Your task to perform on an android device: Open Amazon Image 0: 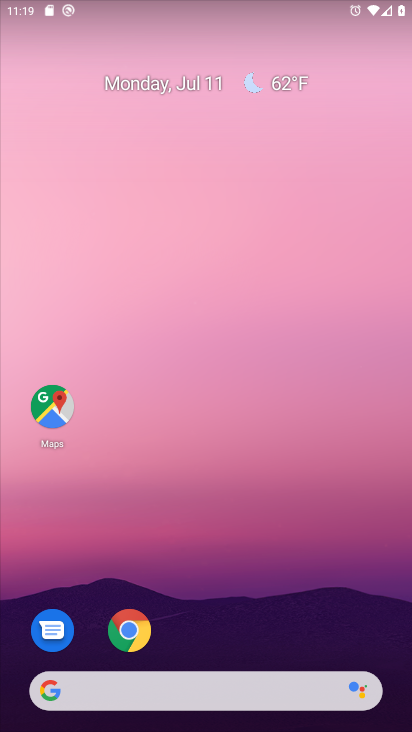
Step 0: click (135, 633)
Your task to perform on an android device: Open Amazon Image 1: 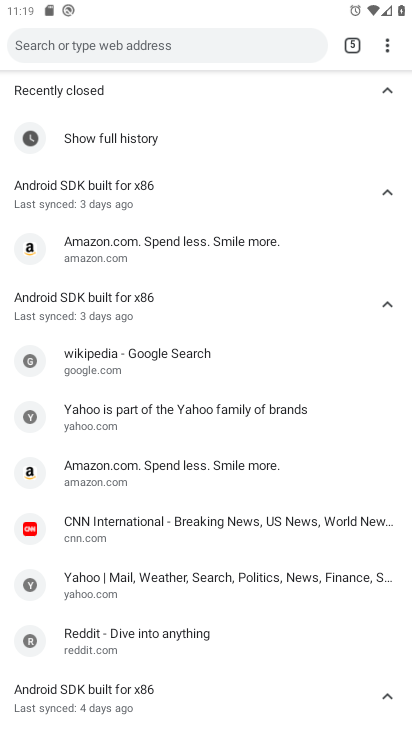
Step 1: click (389, 40)
Your task to perform on an android device: Open Amazon Image 2: 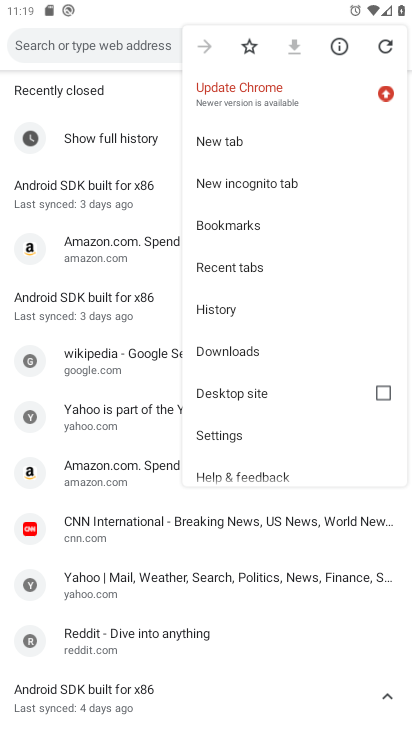
Step 2: click (256, 138)
Your task to perform on an android device: Open Amazon Image 3: 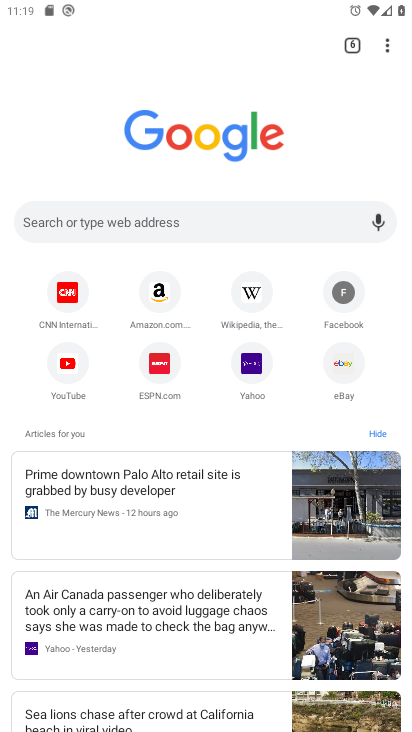
Step 3: click (162, 284)
Your task to perform on an android device: Open Amazon Image 4: 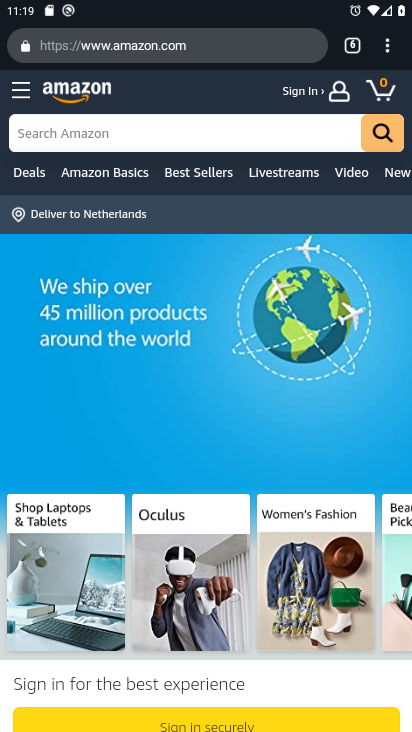
Step 4: task complete